Your task to perform on an android device: toggle javascript in the chrome app Image 0: 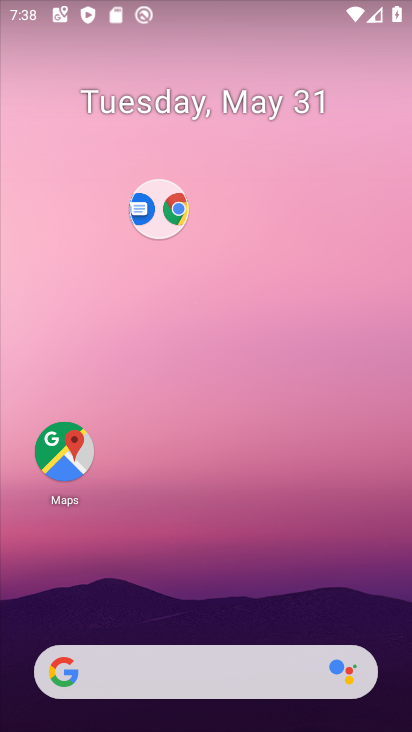
Step 0: drag from (178, 584) to (202, 231)
Your task to perform on an android device: toggle javascript in the chrome app Image 1: 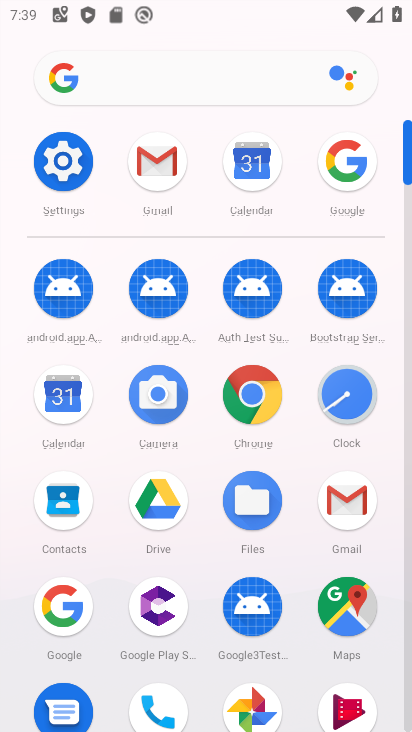
Step 1: click (246, 401)
Your task to perform on an android device: toggle javascript in the chrome app Image 2: 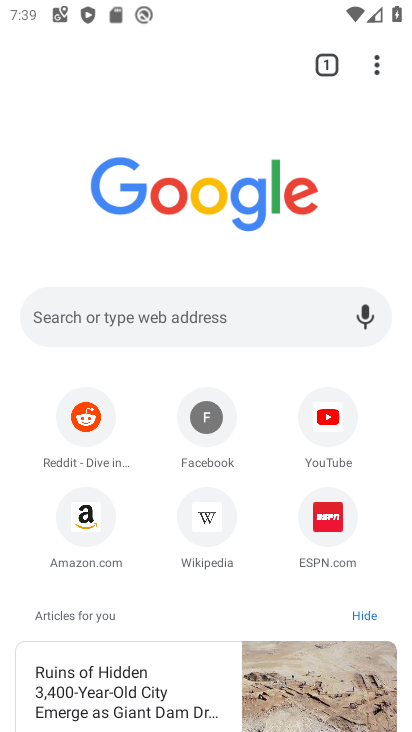
Step 2: click (378, 58)
Your task to perform on an android device: toggle javascript in the chrome app Image 3: 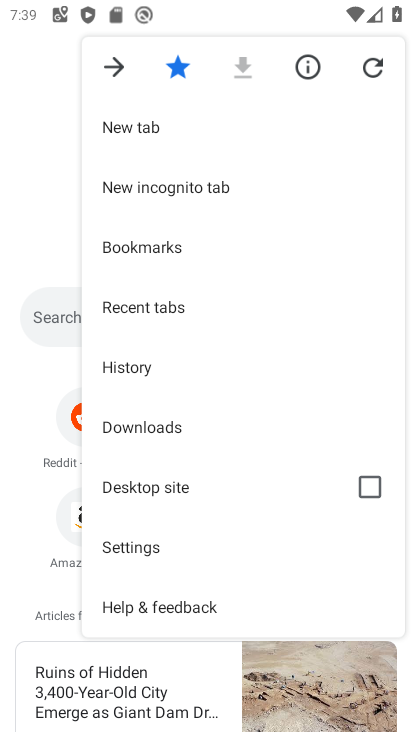
Step 3: click (160, 547)
Your task to perform on an android device: toggle javascript in the chrome app Image 4: 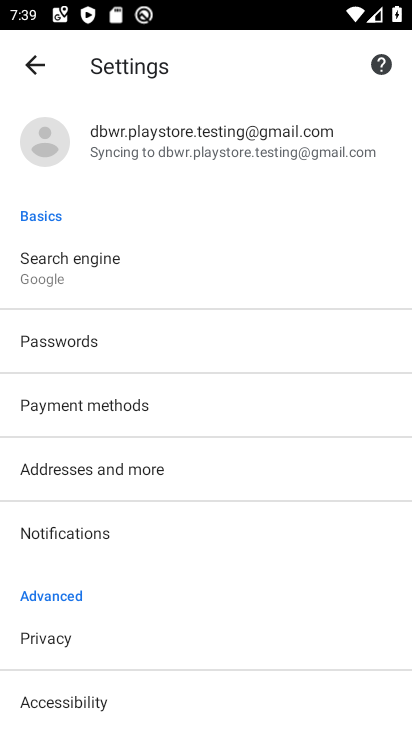
Step 4: drag from (135, 649) to (106, 232)
Your task to perform on an android device: toggle javascript in the chrome app Image 5: 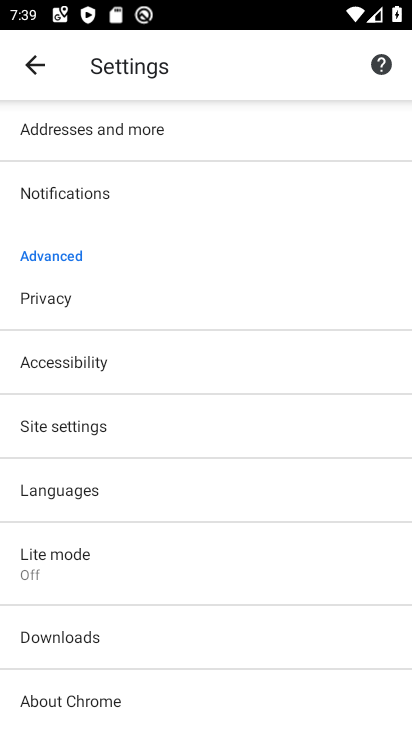
Step 5: click (86, 425)
Your task to perform on an android device: toggle javascript in the chrome app Image 6: 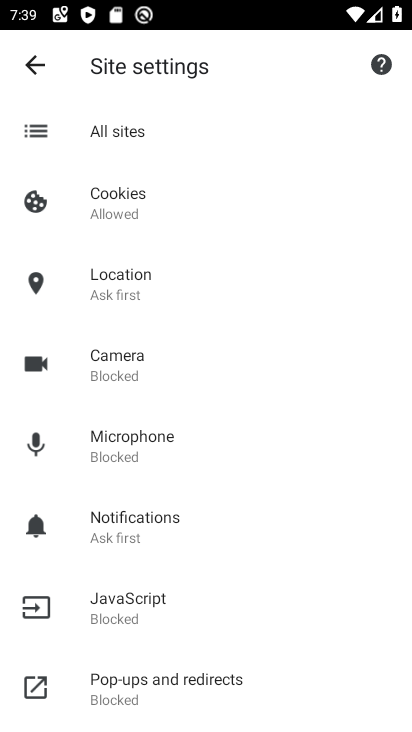
Step 6: click (168, 612)
Your task to perform on an android device: toggle javascript in the chrome app Image 7: 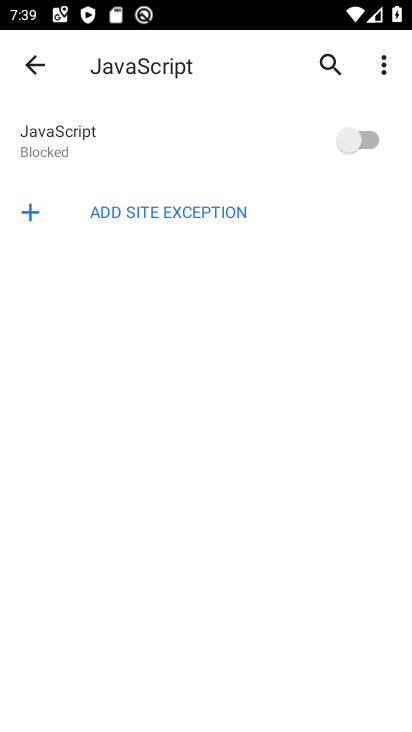
Step 7: click (378, 130)
Your task to perform on an android device: toggle javascript in the chrome app Image 8: 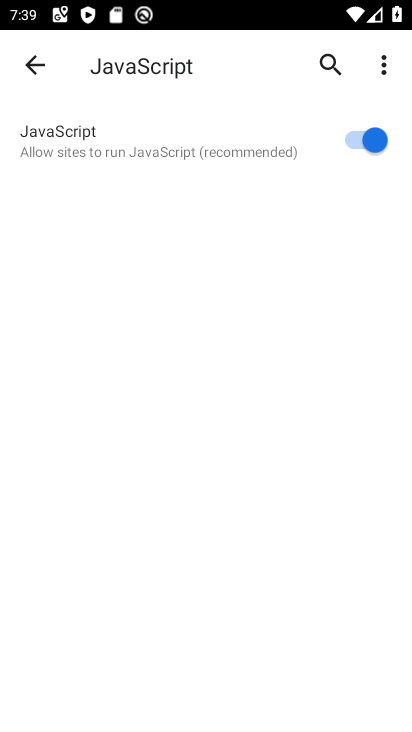
Step 8: task complete